Your task to perform on an android device: check android version Image 0: 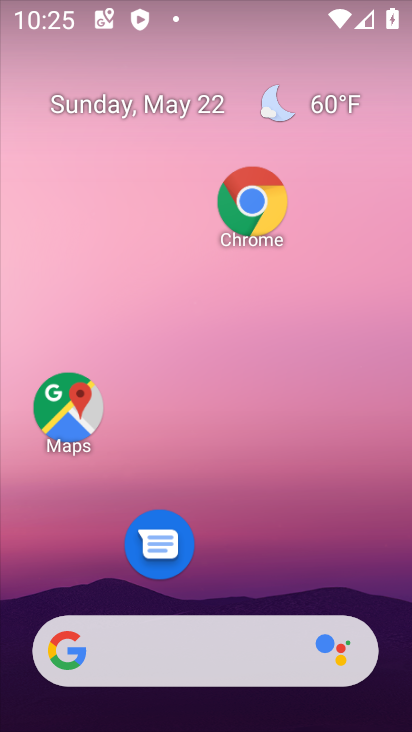
Step 0: drag from (275, 559) to (334, 11)
Your task to perform on an android device: check android version Image 1: 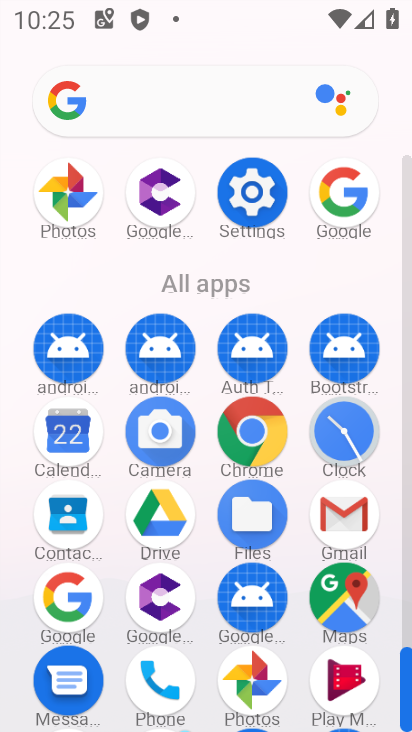
Step 1: click (259, 186)
Your task to perform on an android device: check android version Image 2: 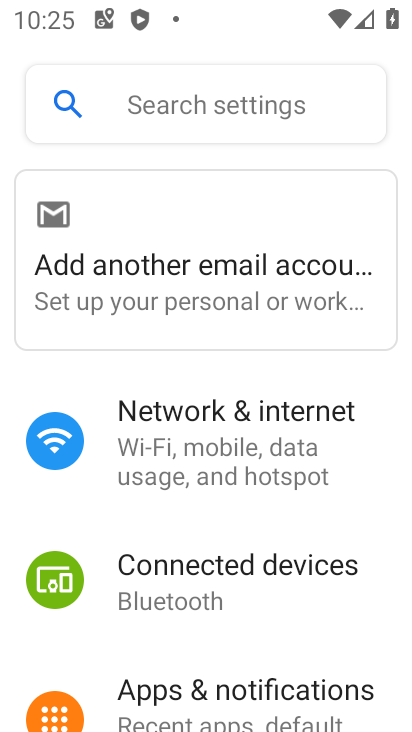
Step 2: drag from (272, 611) to (311, 51)
Your task to perform on an android device: check android version Image 3: 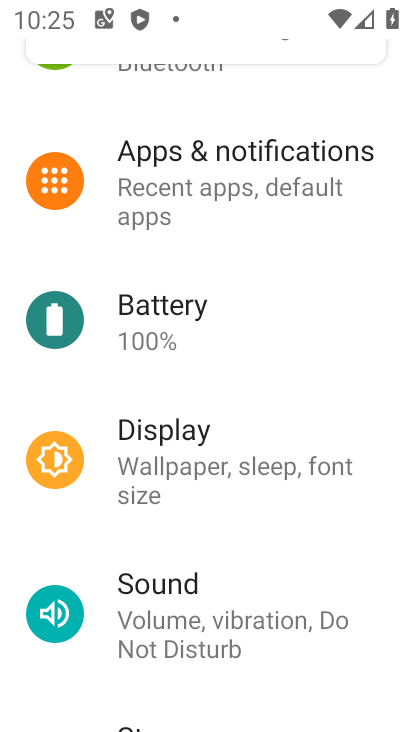
Step 3: drag from (252, 679) to (199, 25)
Your task to perform on an android device: check android version Image 4: 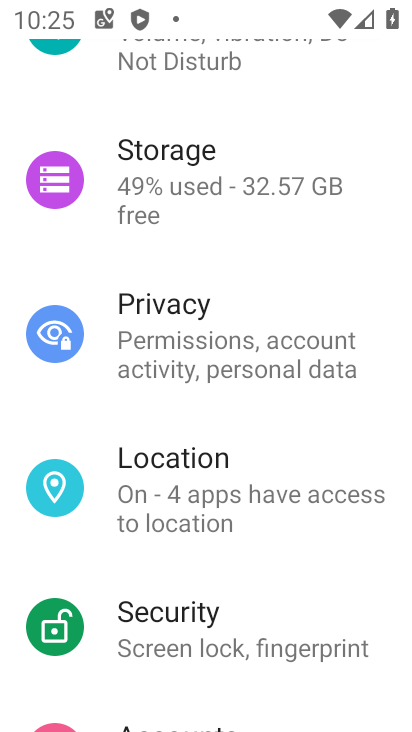
Step 4: drag from (237, 671) to (241, 45)
Your task to perform on an android device: check android version Image 5: 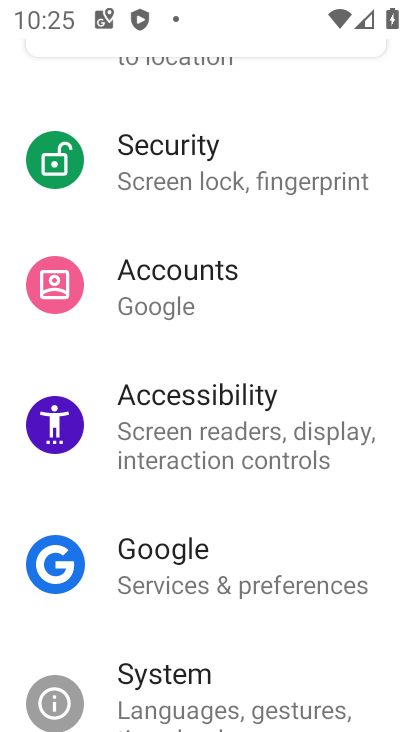
Step 5: drag from (152, 666) to (164, 47)
Your task to perform on an android device: check android version Image 6: 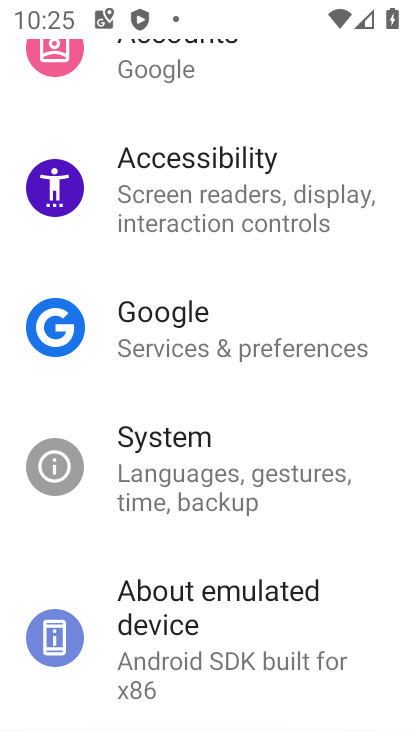
Step 6: click (197, 649)
Your task to perform on an android device: check android version Image 7: 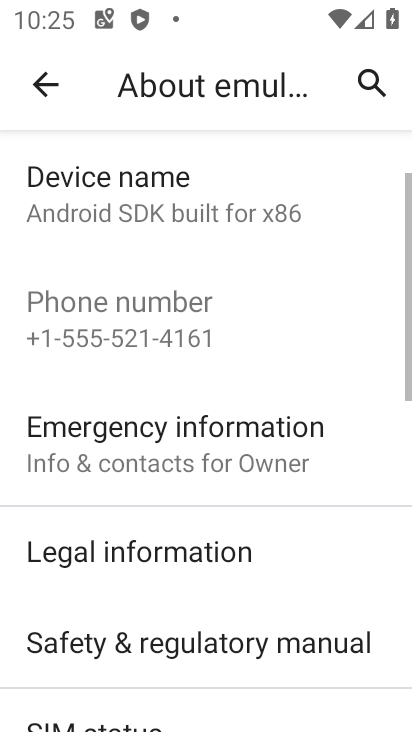
Step 7: drag from (233, 626) to (264, 144)
Your task to perform on an android device: check android version Image 8: 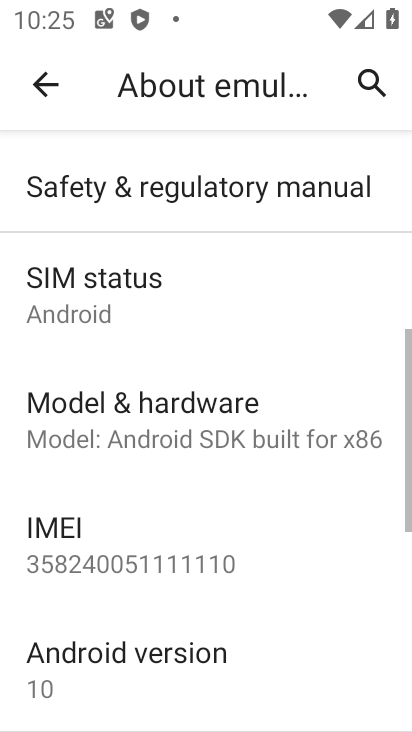
Step 8: drag from (214, 346) to (235, 289)
Your task to perform on an android device: check android version Image 9: 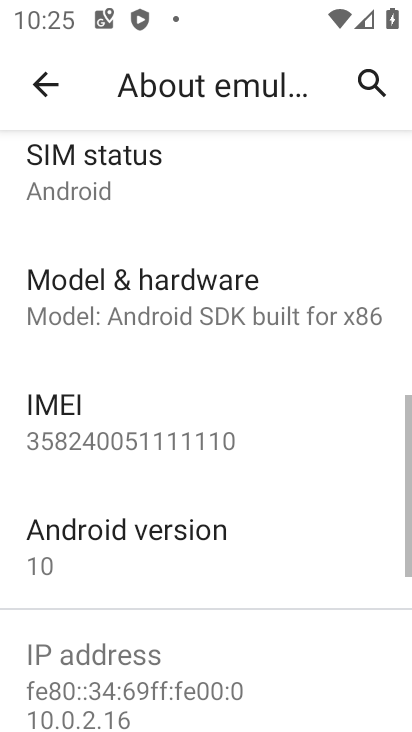
Step 9: click (139, 563)
Your task to perform on an android device: check android version Image 10: 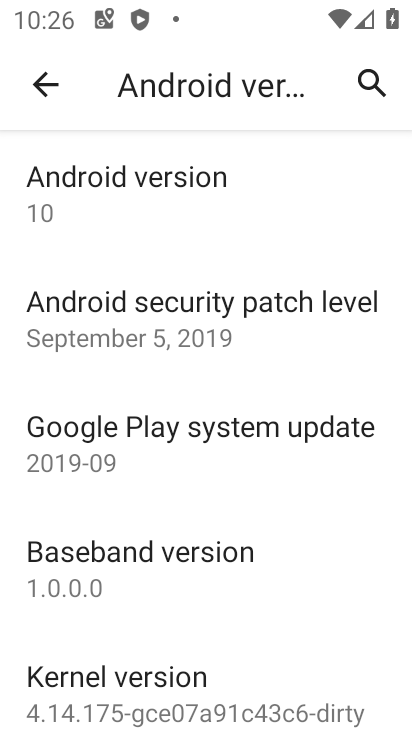
Step 10: task complete